Your task to perform on an android device: turn off translation in the chrome app Image 0: 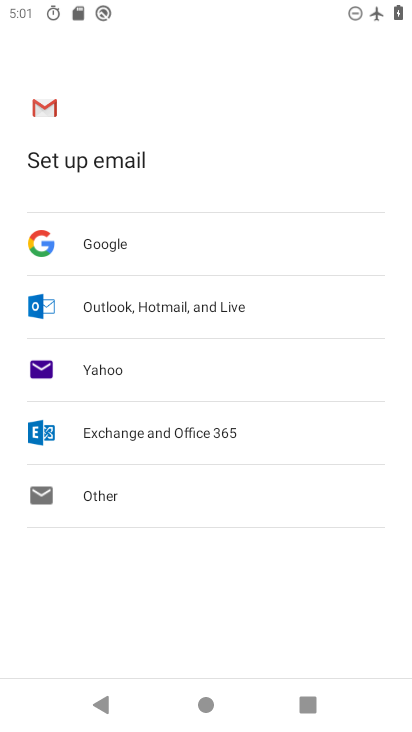
Step 0: press home button
Your task to perform on an android device: turn off translation in the chrome app Image 1: 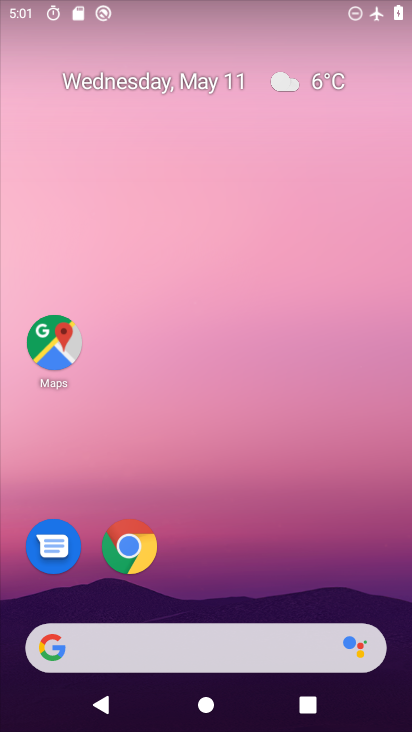
Step 1: click (121, 533)
Your task to perform on an android device: turn off translation in the chrome app Image 2: 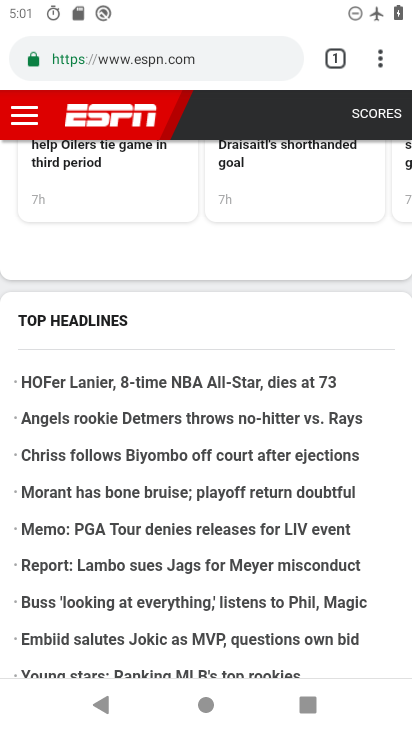
Step 2: click (385, 57)
Your task to perform on an android device: turn off translation in the chrome app Image 3: 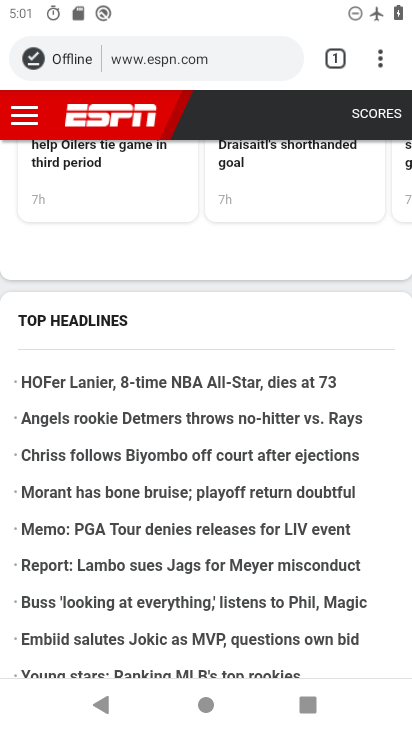
Step 3: click (380, 52)
Your task to perform on an android device: turn off translation in the chrome app Image 4: 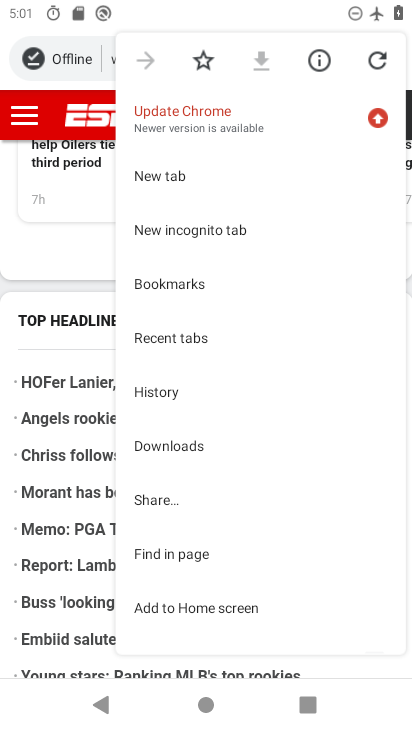
Step 4: click (378, 118)
Your task to perform on an android device: turn off translation in the chrome app Image 5: 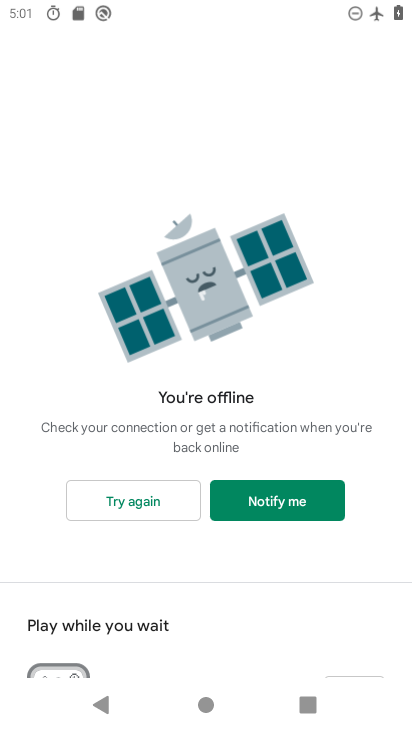
Step 5: press home button
Your task to perform on an android device: turn off translation in the chrome app Image 6: 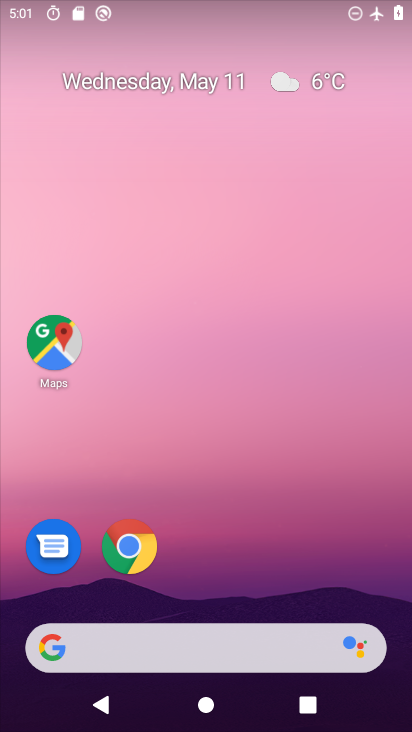
Step 6: click (143, 556)
Your task to perform on an android device: turn off translation in the chrome app Image 7: 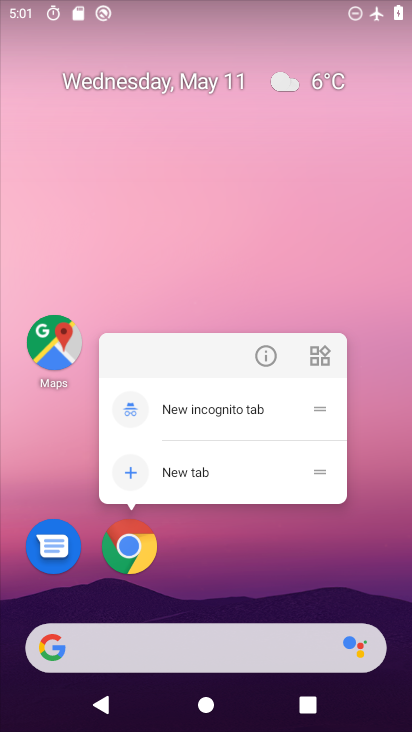
Step 7: click (126, 537)
Your task to perform on an android device: turn off translation in the chrome app Image 8: 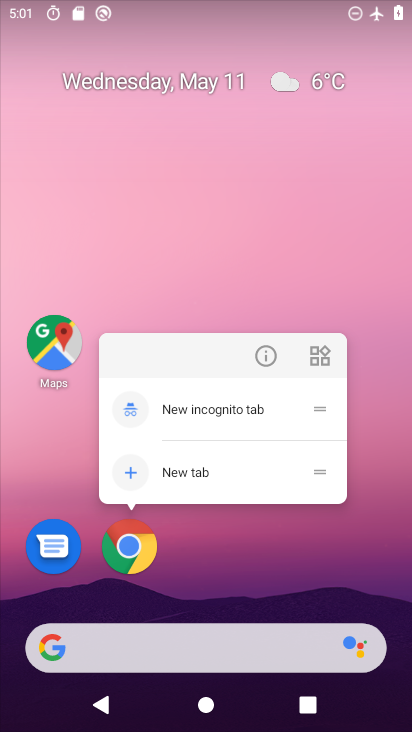
Step 8: click (132, 548)
Your task to perform on an android device: turn off translation in the chrome app Image 9: 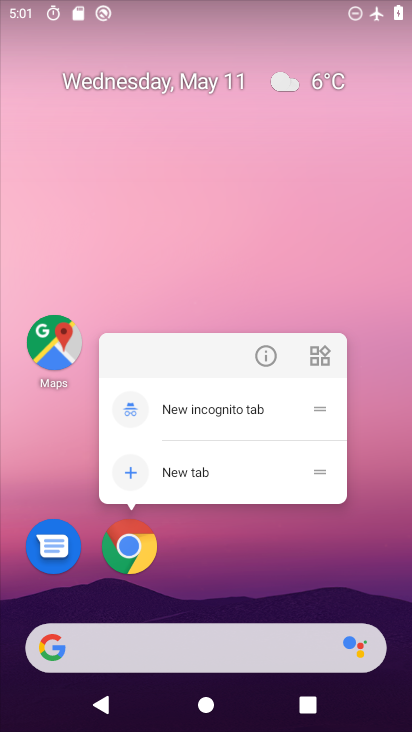
Step 9: click (132, 548)
Your task to perform on an android device: turn off translation in the chrome app Image 10: 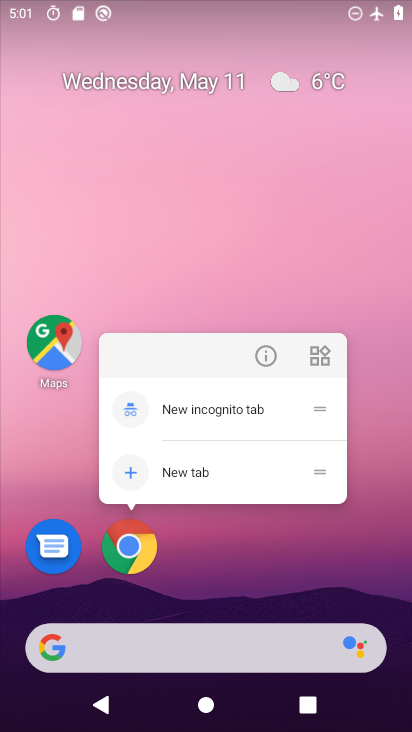
Step 10: click (132, 548)
Your task to perform on an android device: turn off translation in the chrome app Image 11: 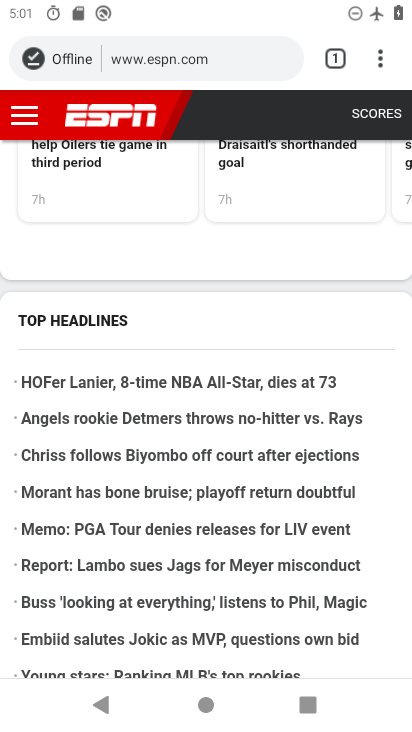
Step 11: click (379, 67)
Your task to perform on an android device: turn off translation in the chrome app Image 12: 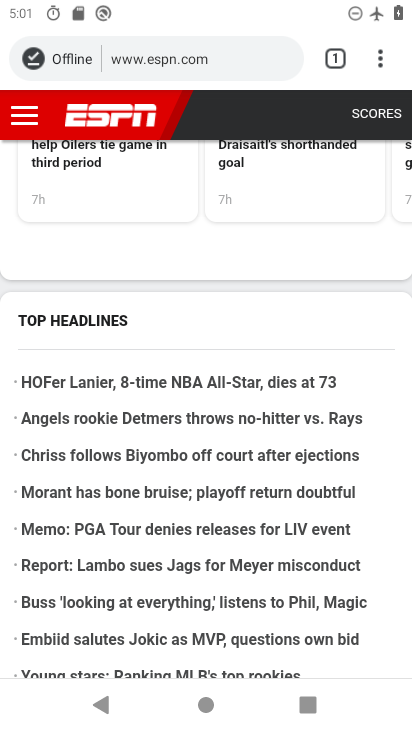
Step 12: click (380, 52)
Your task to perform on an android device: turn off translation in the chrome app Image 13: 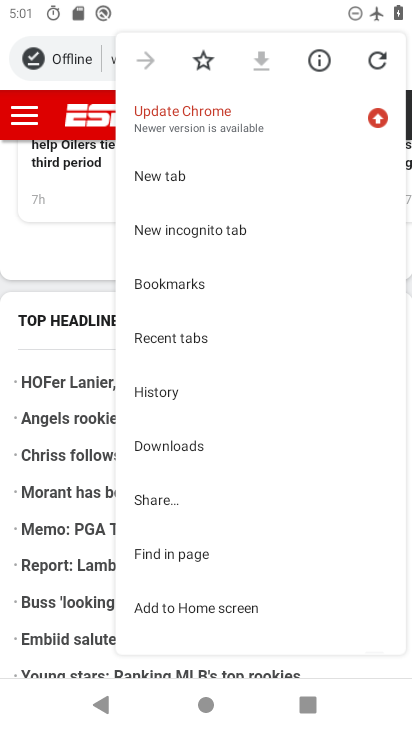
Step 13: drag from (216, 605) to (140, 263)
Your task to perform on an android device: turn off translation in the chrome app Image 14: 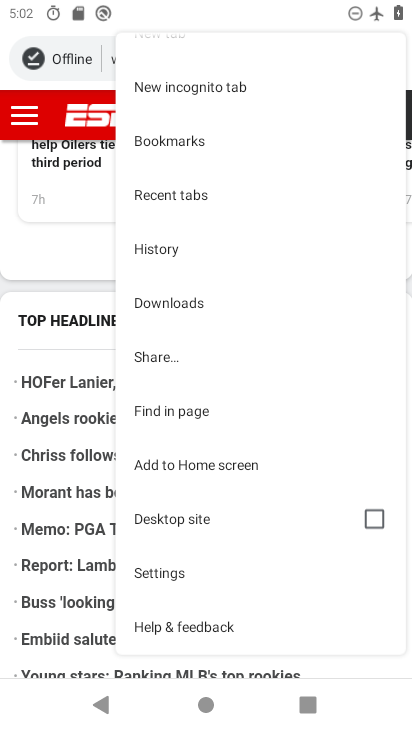
Step 14: click (166, 578)
Your task to perform on an android device: turn off translation in the chrome app Image 15: 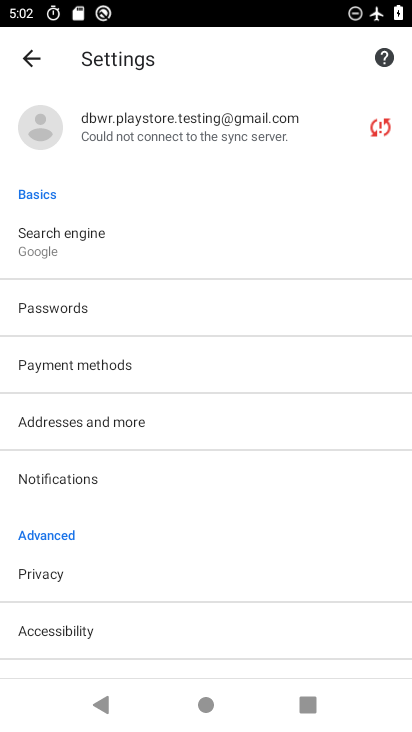
Step 15: drag from (115, 641) to (50, 368)
Your task to perform on an android device: turn off translation in the chrome app Image 16: 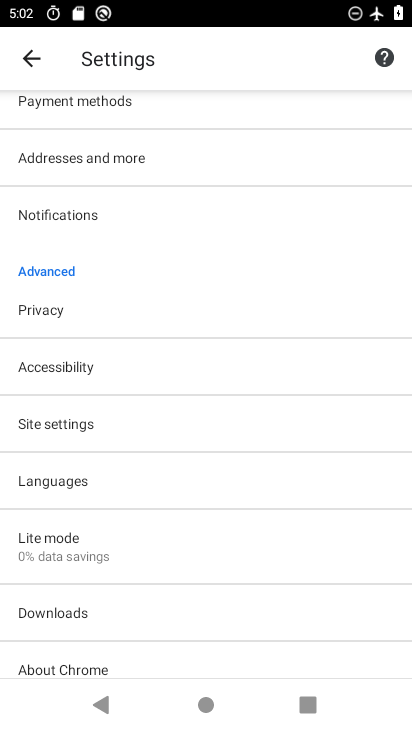
Step 16: click (52, 489)
Your task to perform on an android device: turn off translation in the chrome app Image 17: 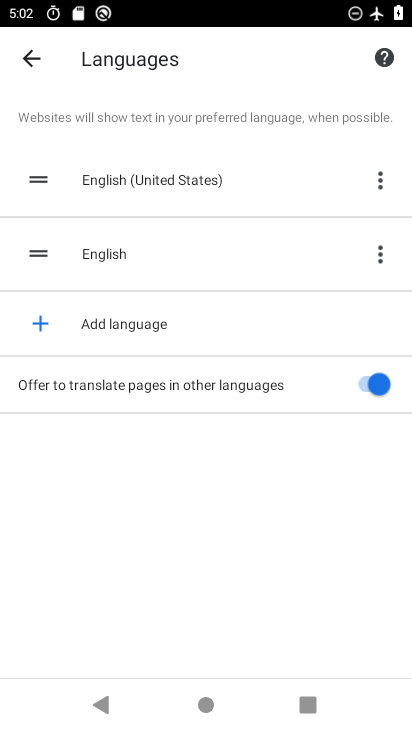
Step 17: click (356, 386)
Your task to perform on an android device: turn off translation in the chrome app Image 18: 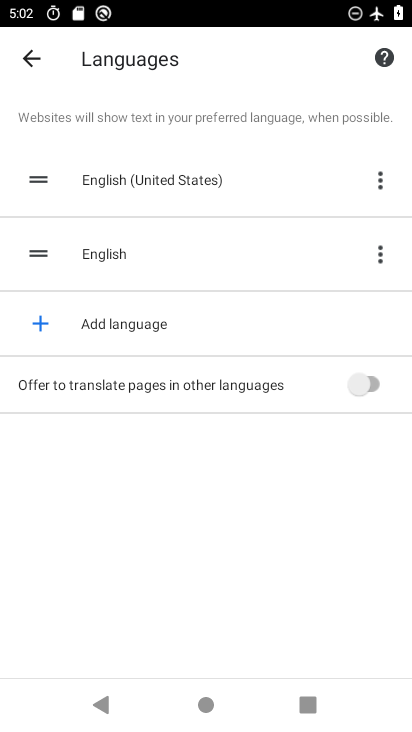
Step 18: task complete